Your task to perform on an android device: Open sound settings Image 0: 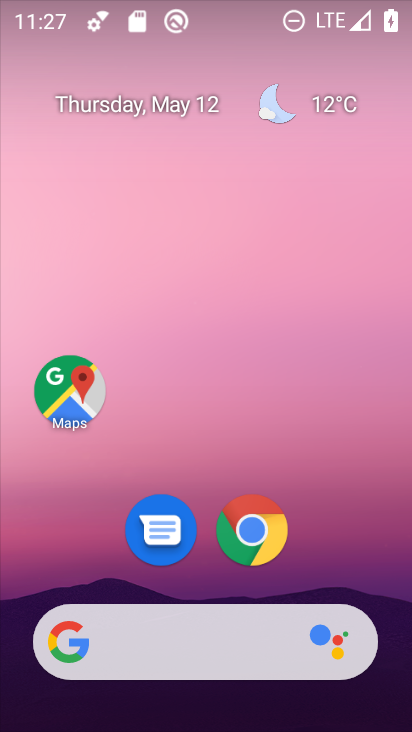
Step 0: drag from (210, 643) to (337, 122)
Your task to perform on an android device: Open sound settings Image 1: 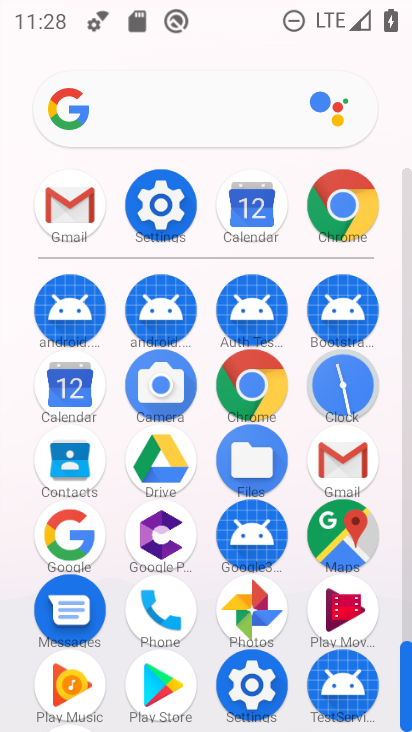
Step 1: click (166, 218)
Your task to perform on an android device: Open sound settings Image 2: 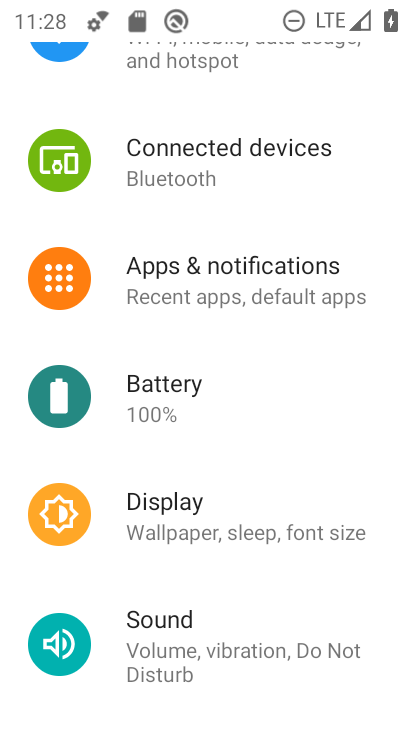
Step 2: click (163, 631)
Your task to perform on an android device: Open sound settings Image 3: 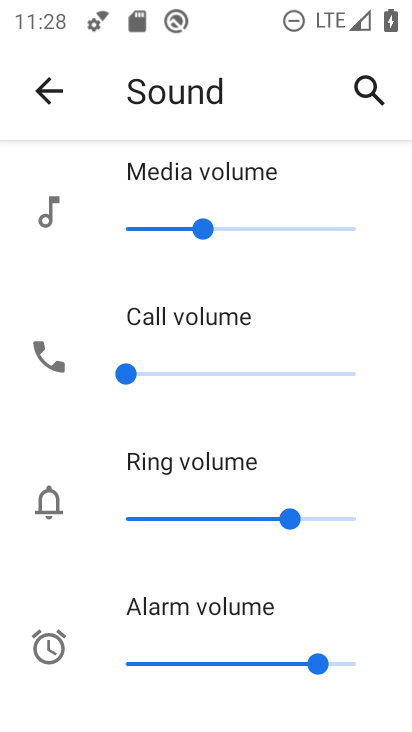
Step 3: task complete